Your task to perform on an android device: find snoozed emails in the gmail app Image 0: 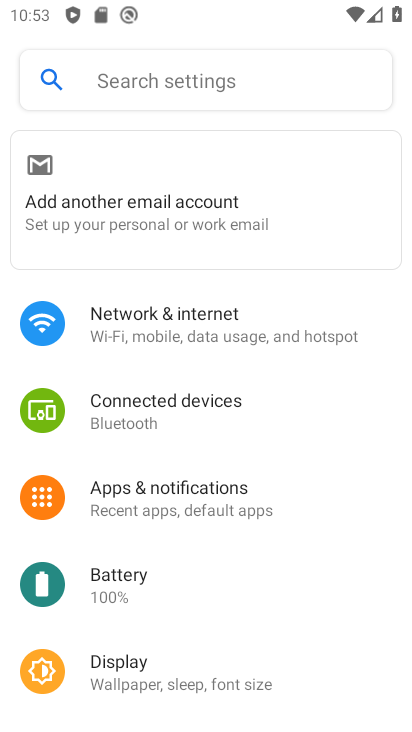
Step 0: press enter
Your task to perform on an android device: find snoozed emails in the gmail app Image 1: 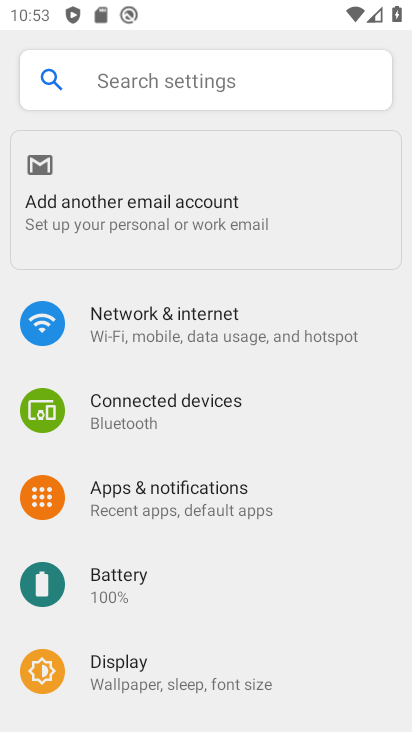
Step 1: press home button
Your task to perform on an android device: find snoozed emails in the gmail app Image 2: 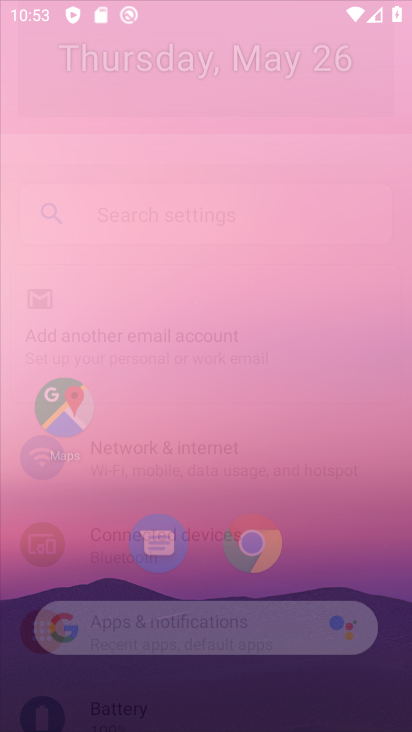
Step 2: press home button
Your task to perform on an android device: find snoozed emails in the gmail app Image 3: 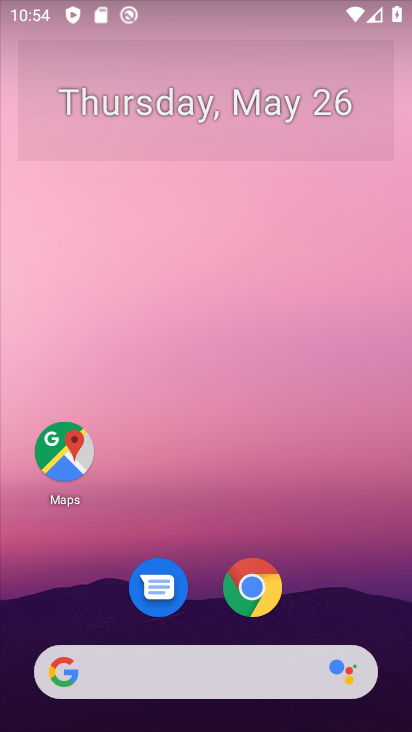
Step 3: drag from (242, 651) to (331, 88)
Your task to perform on an android device: find snoozed emails in the gmail app Image 4: 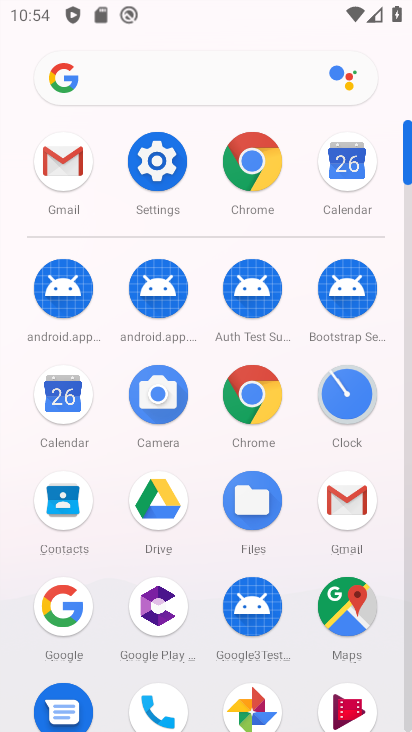
Step 4: click (71, 157)
Your task to perform on an android device: find snoozed emails in the gmail app Image 5: 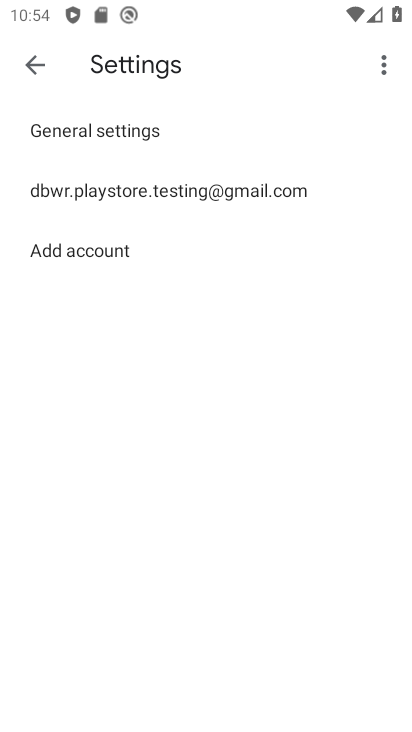
Step 5: click (151, 185)
Your task to perform on an android device: find snoozed emails in the gmail app Image 6: 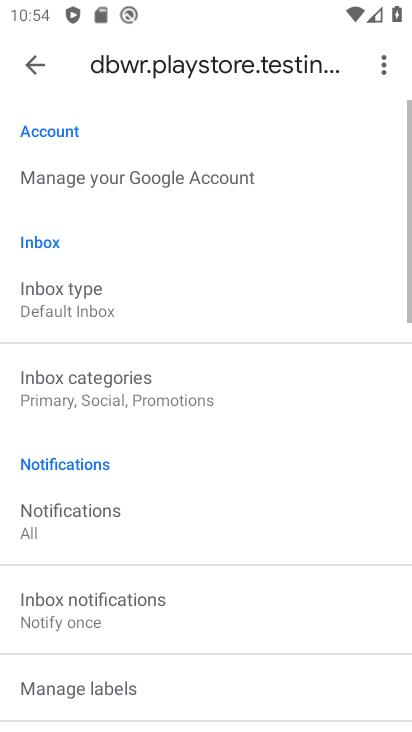
Step 6: click (41, 76)
Your task to perform on an android device: find snoozed emails in the gmail app Image 7: 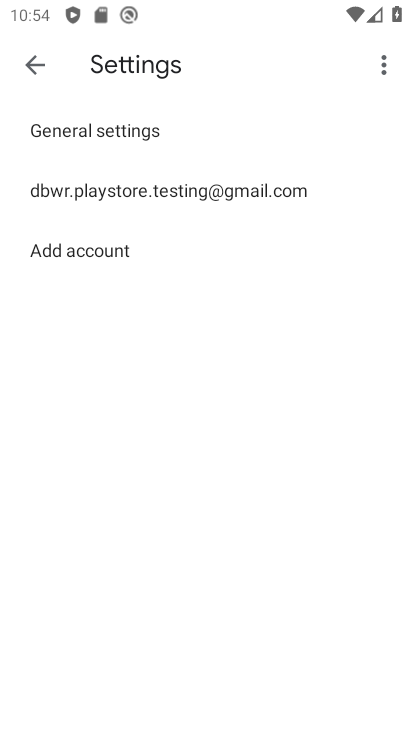
Step 7: click (40, 76)
Your task to perform on an android device: find snoozed emails in the gmail app Image 8: 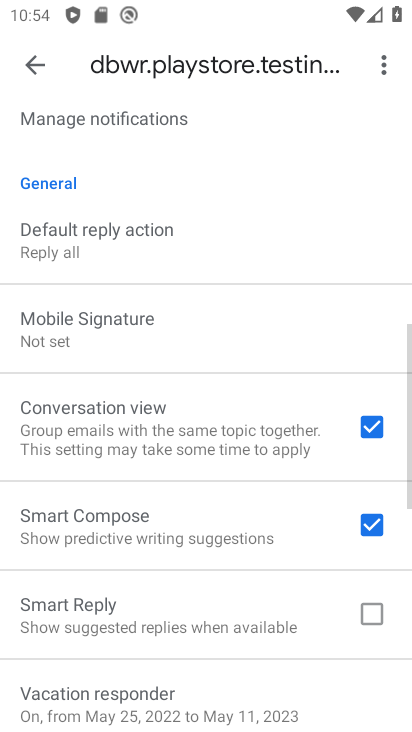
Step 8: click (40, 76)
Your task to perform on an android device: find snoozed emails in the gmail app Image 9: 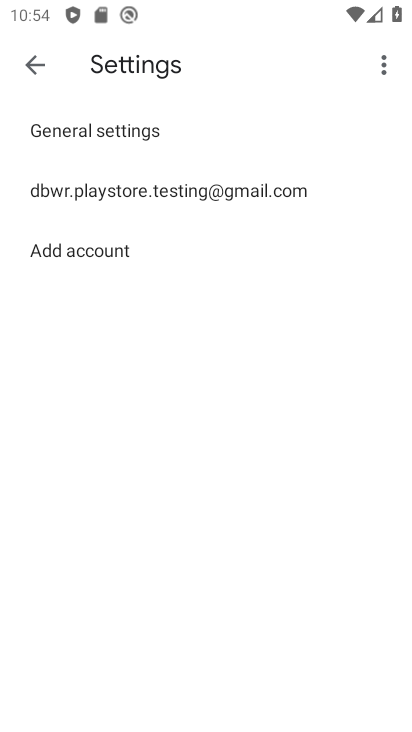
Step 9: click (40, 76)
Your task to perform on an android device: find snoozed emails in the gmail app Image 10: 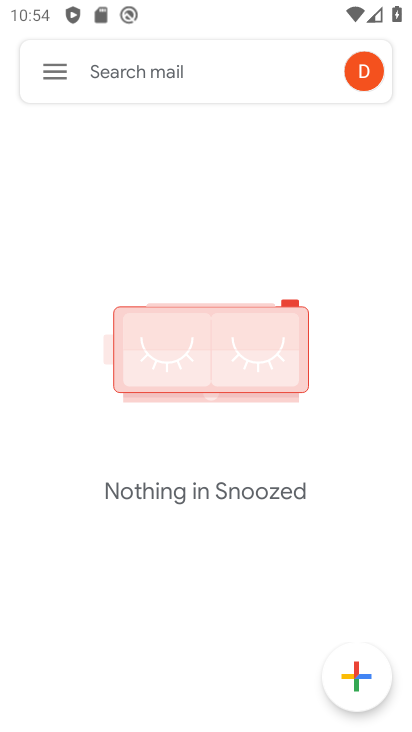
Step 10: click (39, 78)
Your task to perform on an android device: find snoozed emails in the gmail app Image 11: 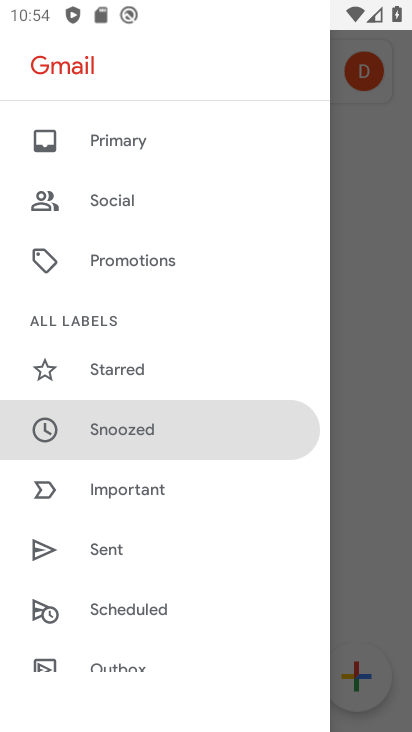
Step 11: click (107, 419)
Your task to perform on an android device: find snoozed emails in the gmail app Image 12: 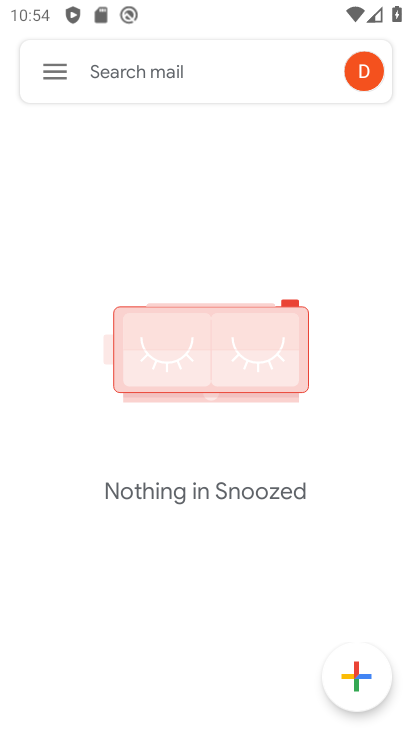
Step 12: task complete